Your task to perform on an android device: What's the weather today? Image 0: 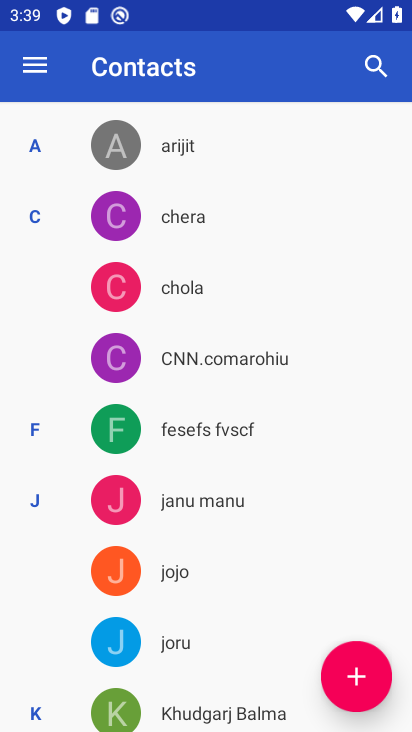
Step 0: press home button
Your task to perform on an android device: What's the weather today? Image 1: 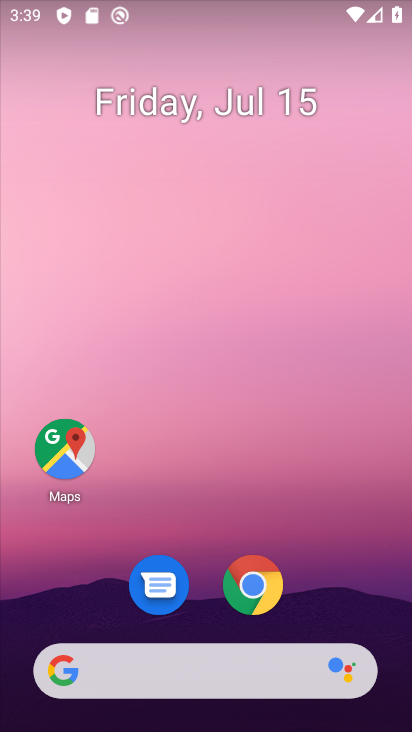
Step 1: click (207, 676)
Your task to perform on an android device: What's the weather today? Image 2: 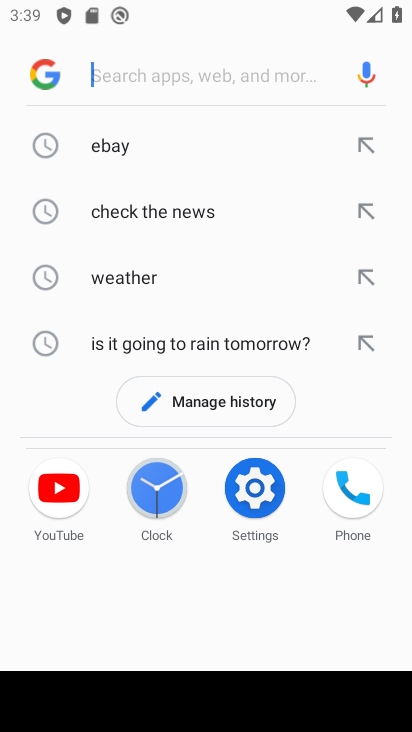
Step 2: click (120, 282)
Your task to perform on an android device: What's the weather today? Image 3: 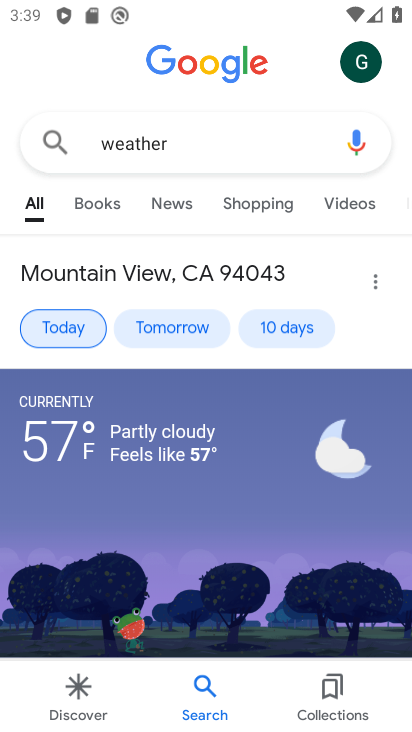
Step 3: click (71, 332)
Your task to perform on an android device: What's the weather today? Image 4: 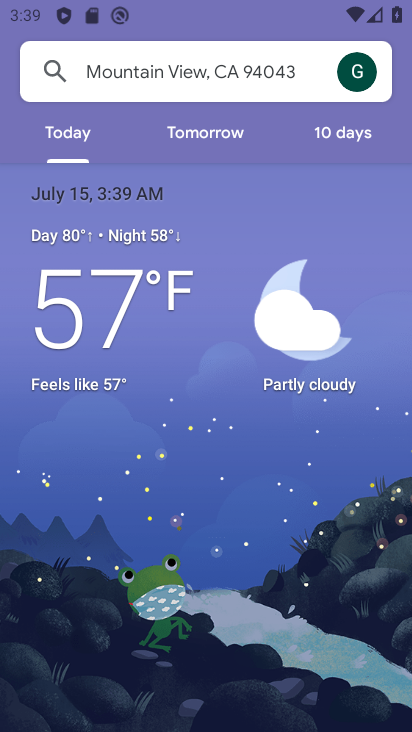
Step 4: task complete